Your task to perform on an android device: Open Chrome and go to the settings page Image 0: 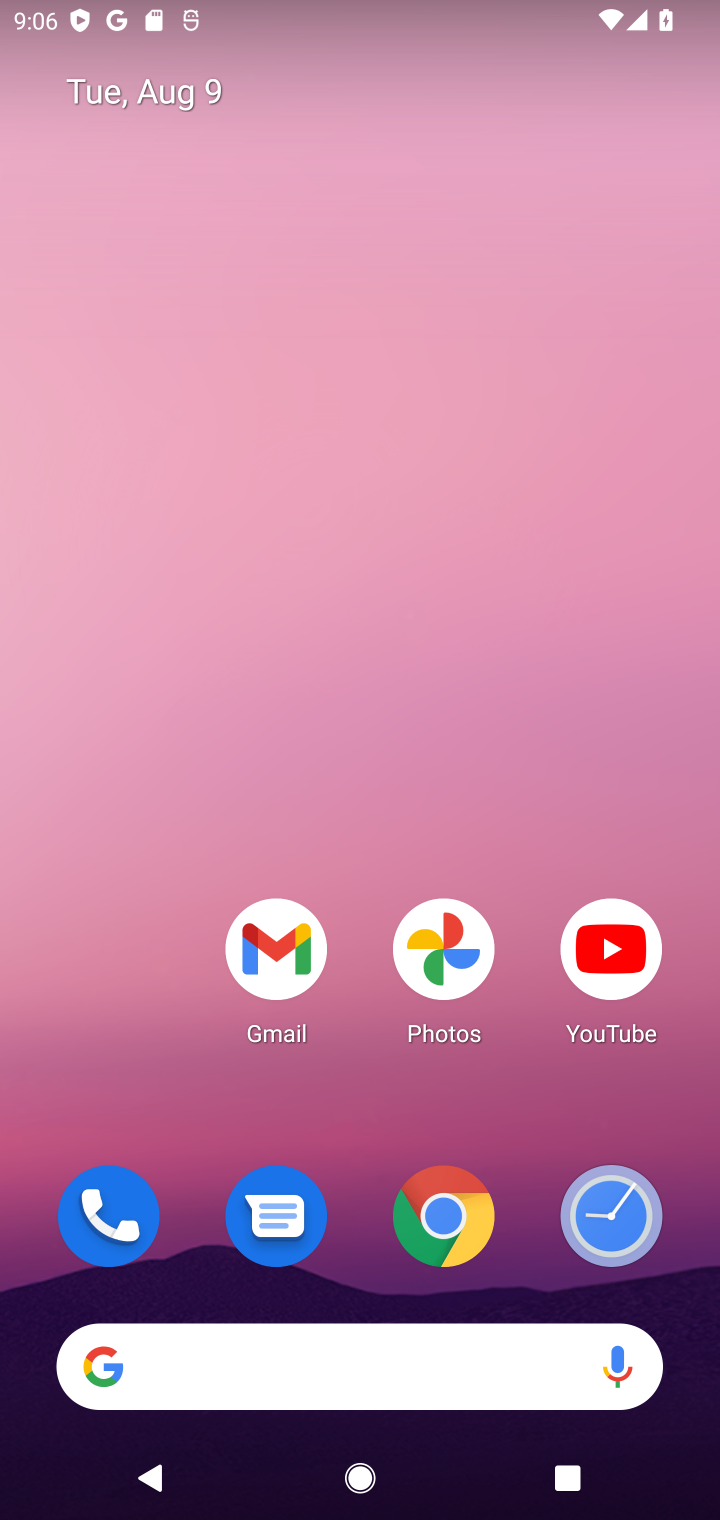
Step 0: drag from (394, 1326) to (372, 724)
Your task to perform on an android device: Open Chrome and go to the settings page Image 1: 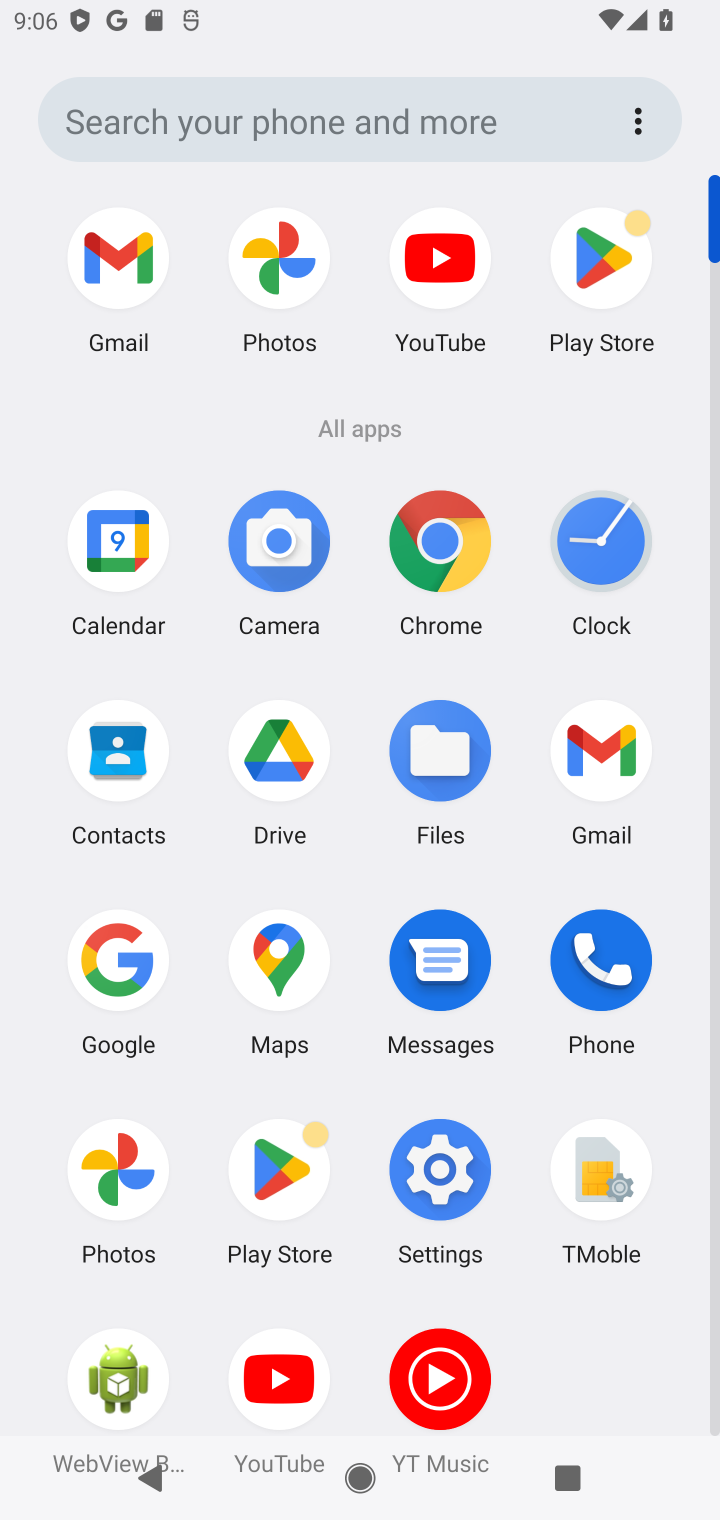
Step 1: click (437, 1183)
Your task to perform on an android device: Open Chrome and go to the settings page Image 2: 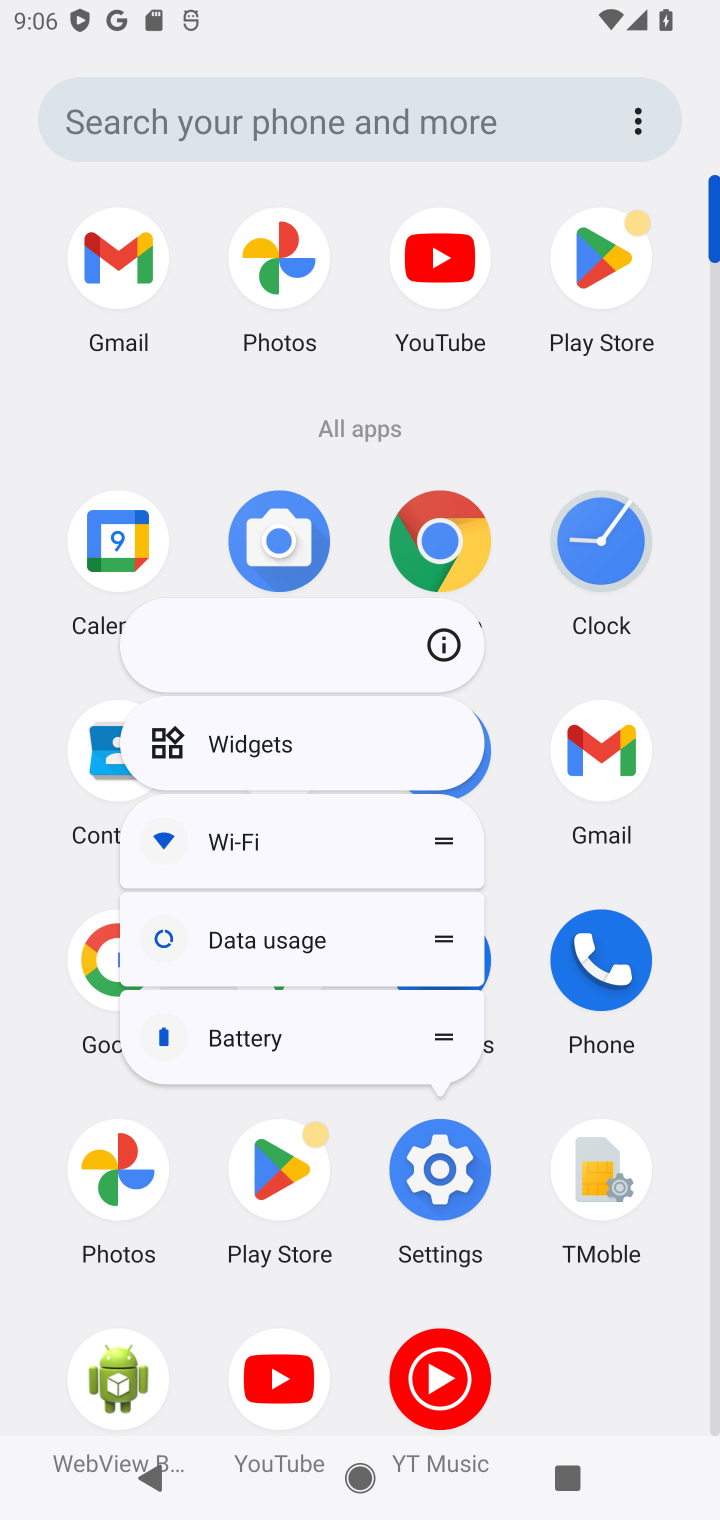
Step 2: click (433, 1178)
Your task to perform on an android device: Open Chrome and go to the settings page Image 3: 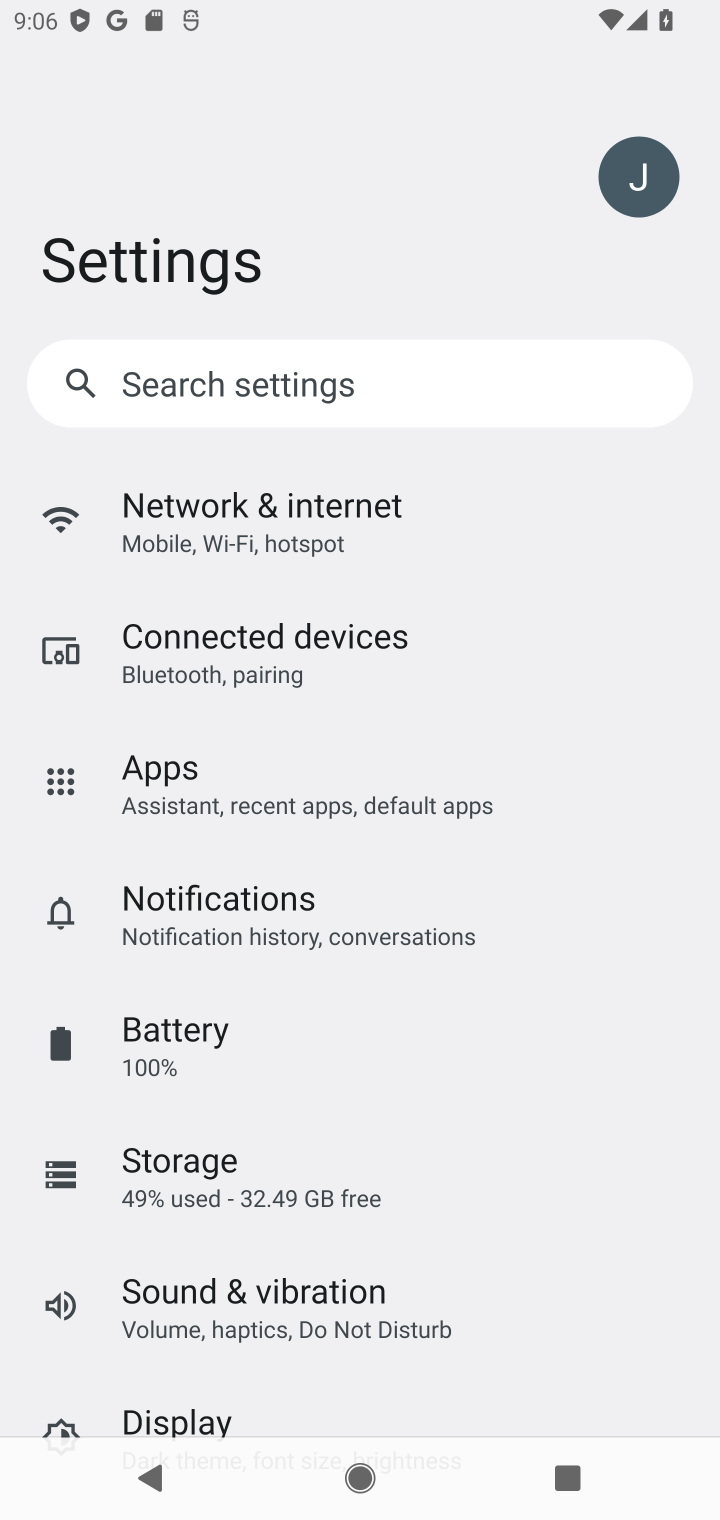
Step 3: task complete